Your task to perform on an android device: find which apps use the phone's location Image 0: 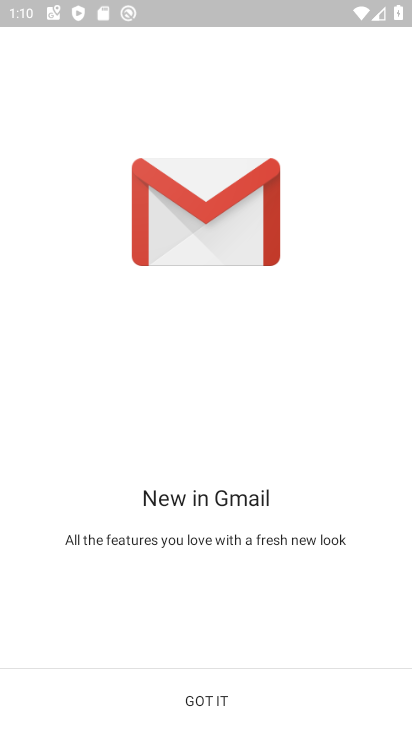
Step 0: press home button
Your task to perform on an android device: find which apps use the phone's location Image 1: 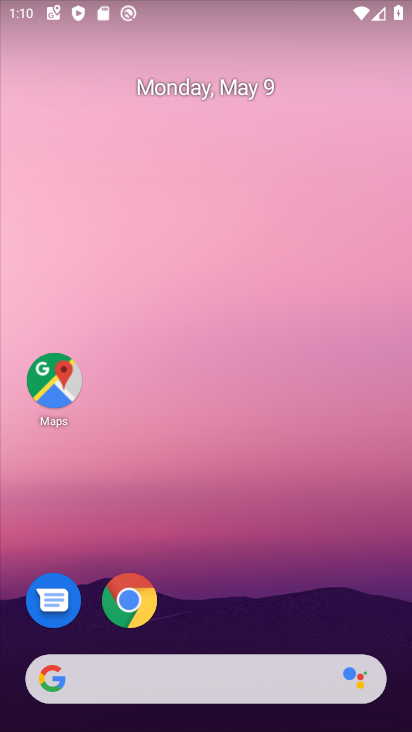
Step 1: drag from (235, 611) to (206, 89)
Your task to perform on an android device: find which apps use the phone's location Image 2: 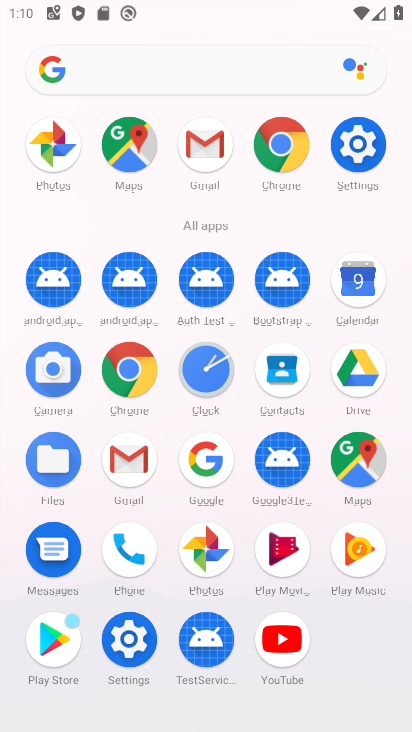
Step 2: click (364, 133)
Your task to perform on an android device: find which apps use the phone's location Image 3: 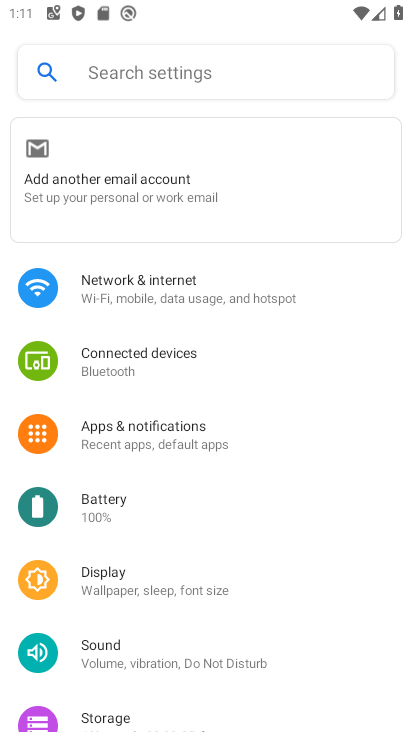
Step 3: drag from (145, 666) to (227, 129)
Your task to perform on an android device: find which apps use the phone's location Image 4: 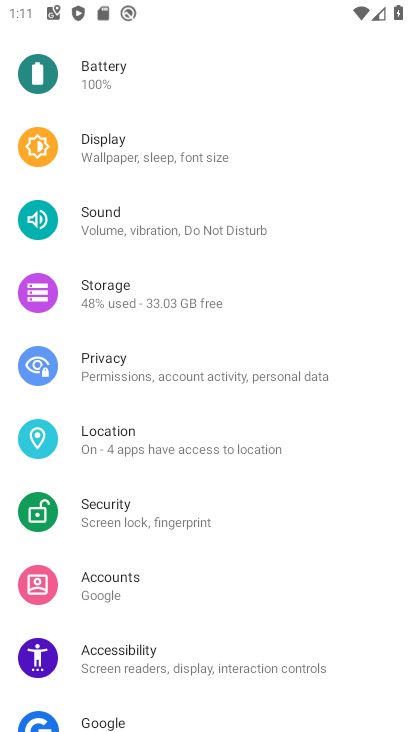
Step 4: click (126, 442)
Your task to perform on an android device: find which apps use the phone's location Image 5: 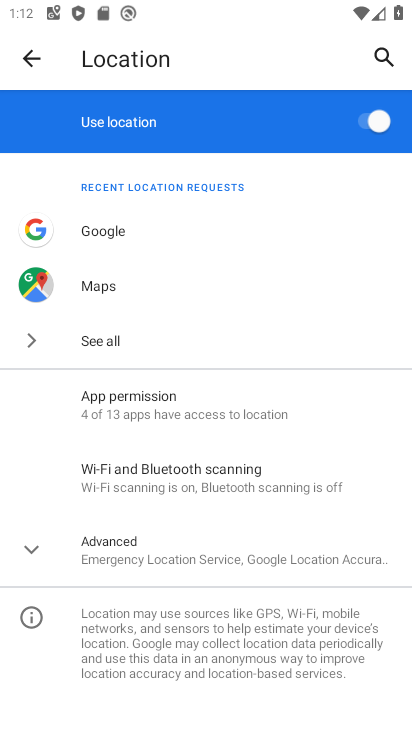
Step 5: click (124, 344)
Your task to perform on an android device: find which apps use the phone's location Image 6: 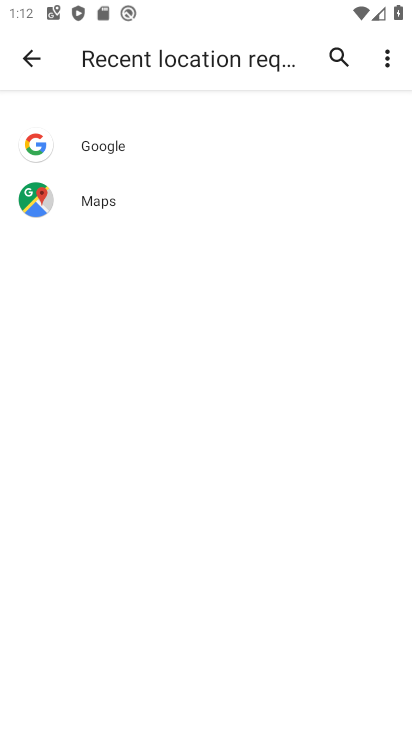
Step 6: task complete